Your task to perform on an android device: When is my next appointment? Image 0: 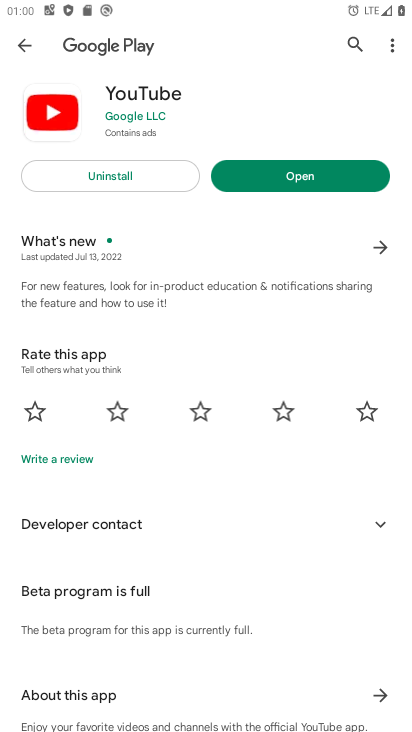
Step 0: press home button
Your task to perform on an android device: When is my next appointment? Image 1: 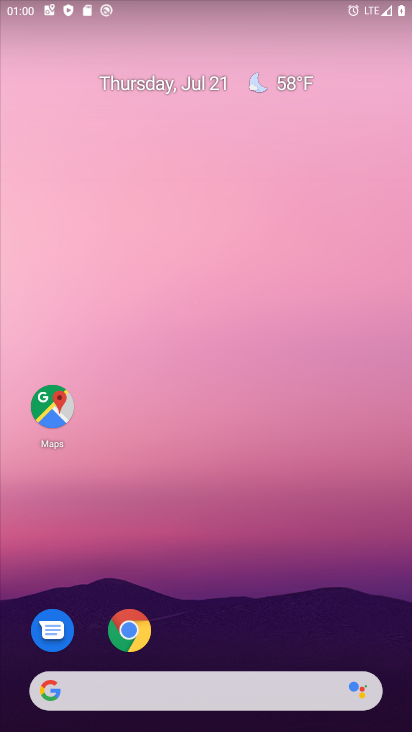
Step 1: click (198, 89)
Your task to perform on an android device: When is my next appointment? Image 2: 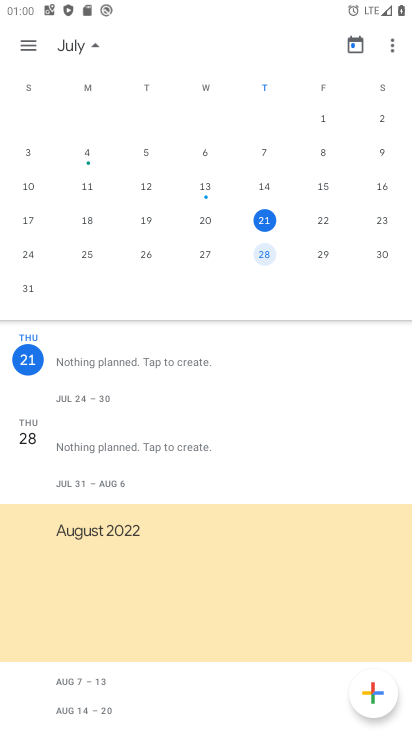
Step 2: task complete